Your task to perform on an android device: Open network settings Image 0: 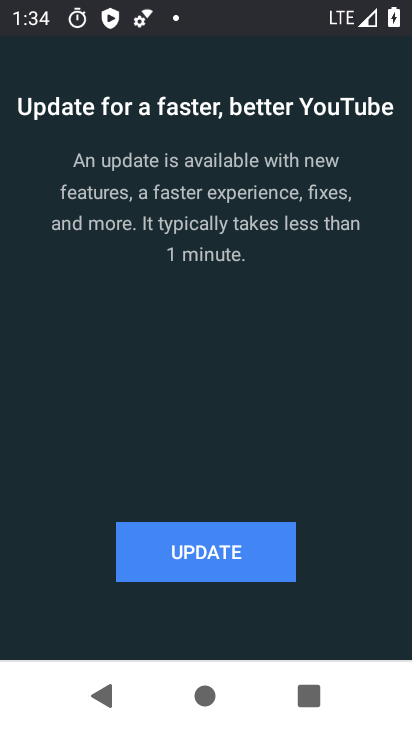
Step 0: press home button
Your task to perform on an android device: Open network settings Image 1: 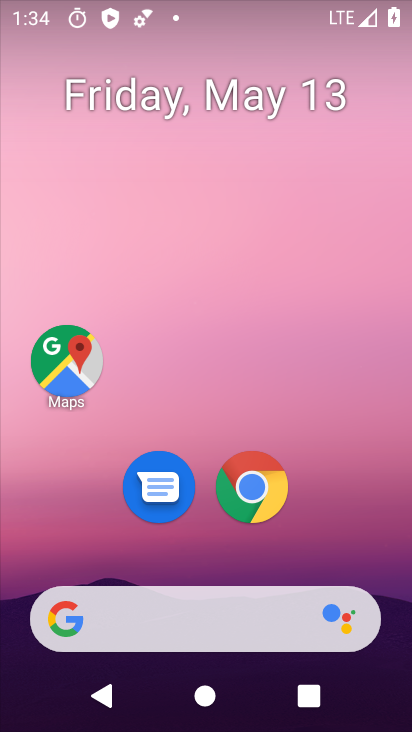
Step 1: drag from (358, 518) to (318, 156)
Your task to perform on an android device: Open network settings Image 2: 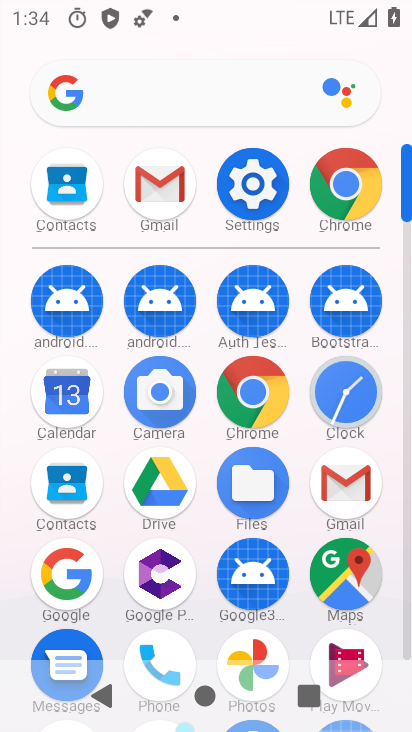
Step 2: click (252, 177)
Your task to perform on an android device: Open network settings Image 3: 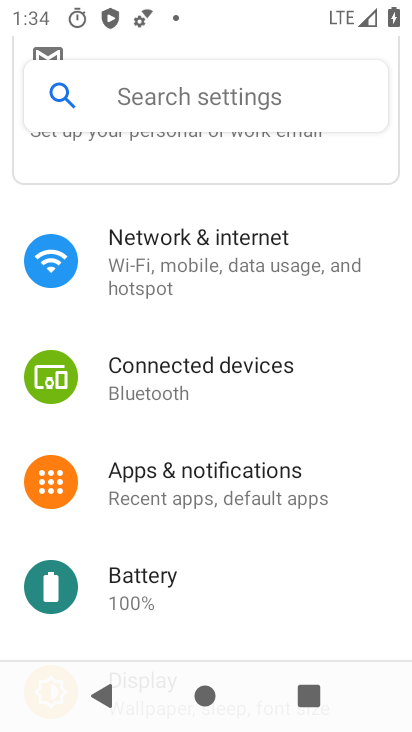
Step 3: click (218, 271)
Your task to perform on an android device: Open network settings Image 4: 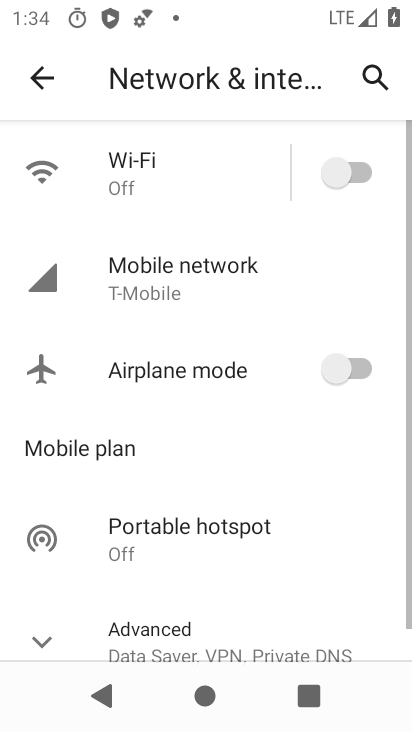
Step 4: click (218, 271)
Your task to perform on an android device: Open network settings Image 5: 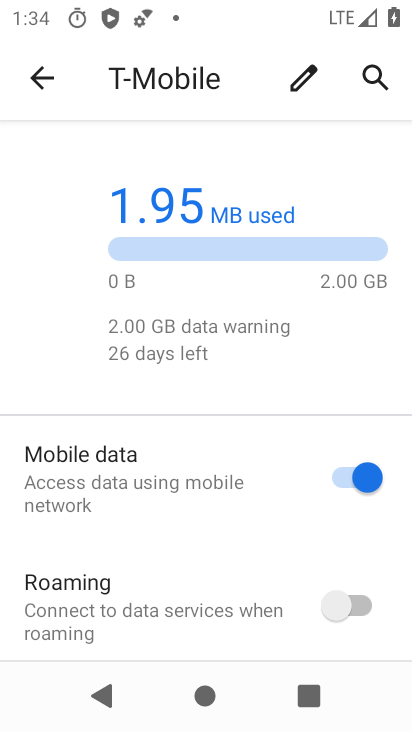
Step 5: task complete